Your task to perform on an android device: Open Yahoo.com Image 0: 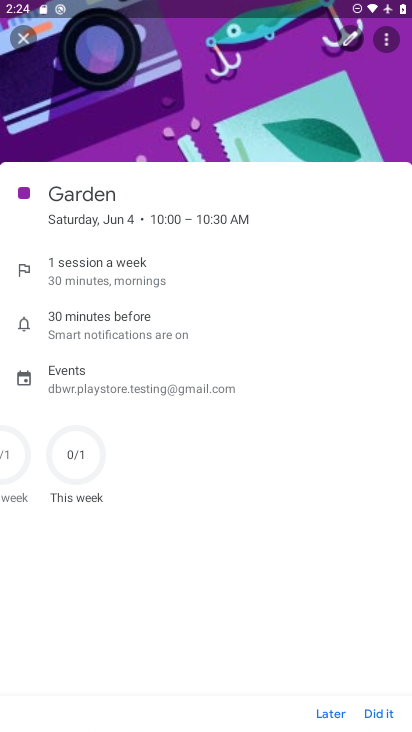
Step 0: press home button
Your task to perform on an android device: Open Yahoo.com Image 1: 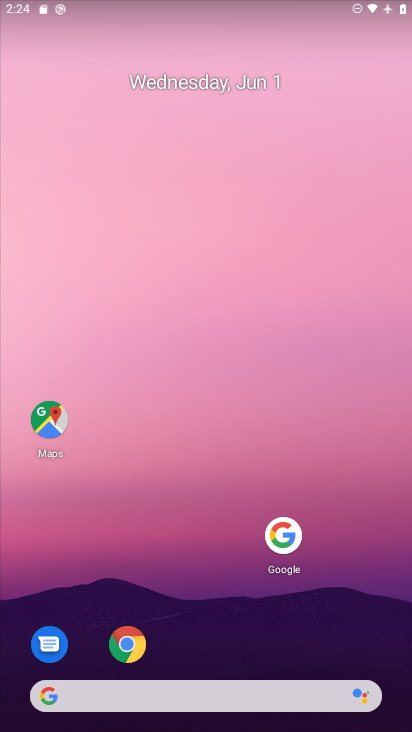
Step 1: click (134, 638)
Your task to perform on an android device: Open Yahoo.com Image 2: 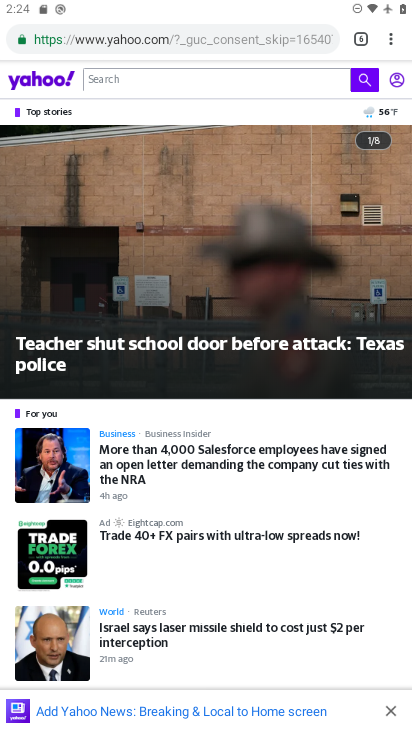
Step 2: task complete